Your task to perform on an android device: toggle wifi Image 0: 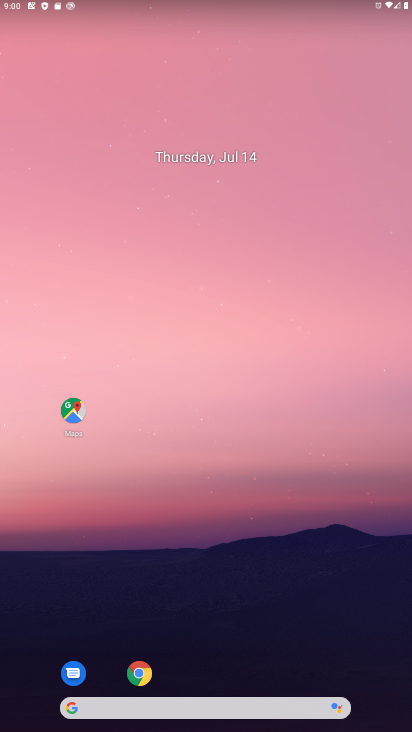
Step 0: drag from (210, 704) to (255, 180)
Your task to perform on an android device: toggle wifi Image 1: 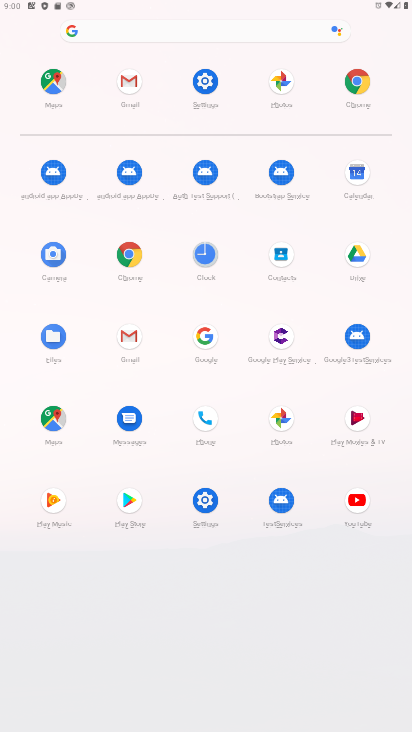
Step 1: click (203, 80)
Your task to perform on an android device: toggle wifi Image 2: 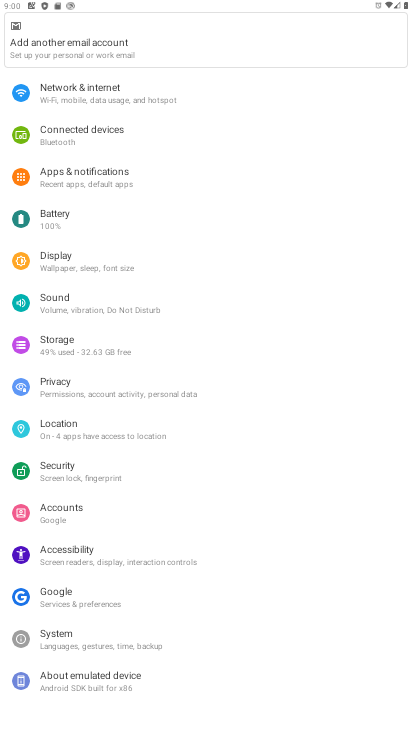
Step 2: click (109, 95)
Your task to perform on an android device: toggle wifi Image 3: 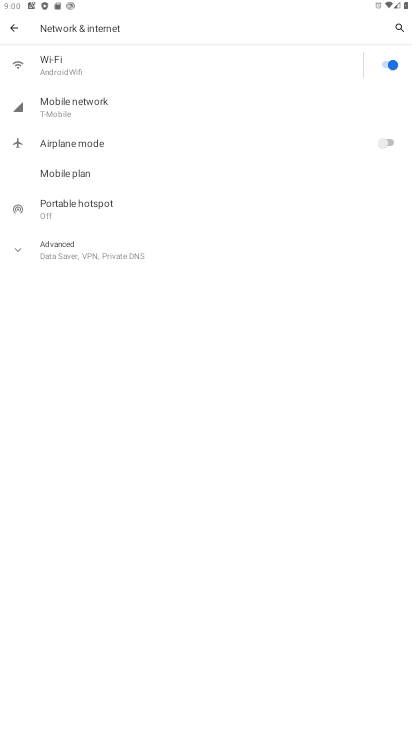
Step 3: click (389, 65)
Your task to perform on an android device: toggle wifi Image 4: 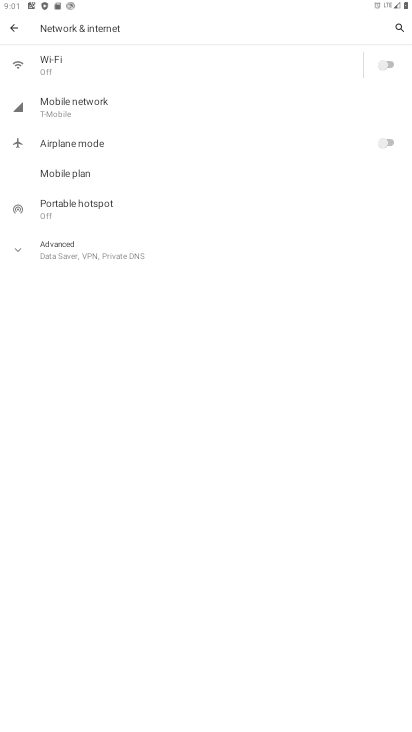
Step 4: task complete